Your task to perform on an android device: add a contact Image 0: 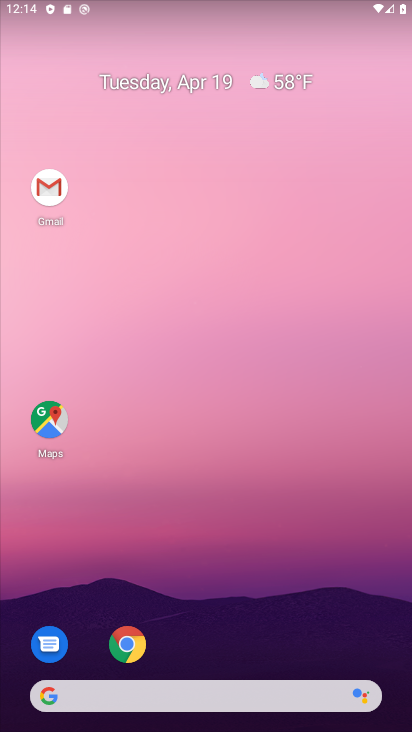
Step 0: drag from (221, 644) to (190, 291)
Your task to perform on an android device: add a contact Image 1: 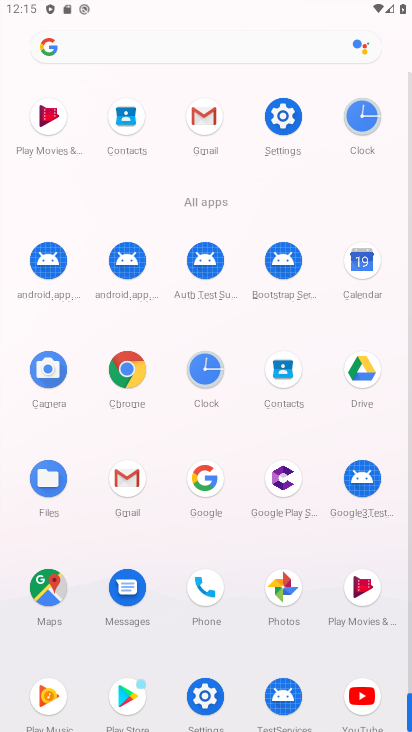
Step 1: click (279, 379)
Your task to perform on an android device: add a contact Image 2: 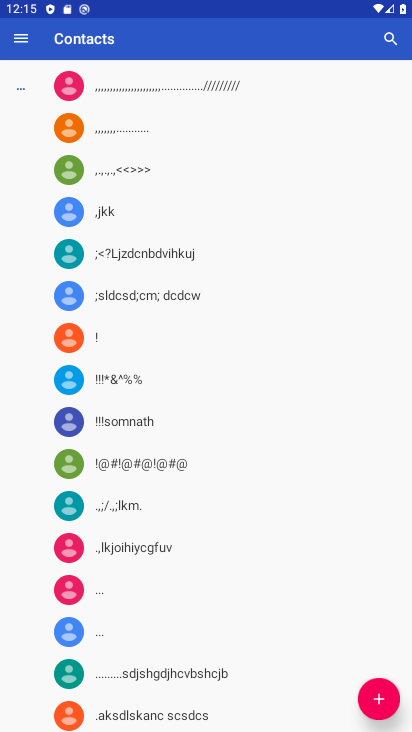
Step 2: click (390, 697)
Your task to perform on an android device: add a contact Image 3: 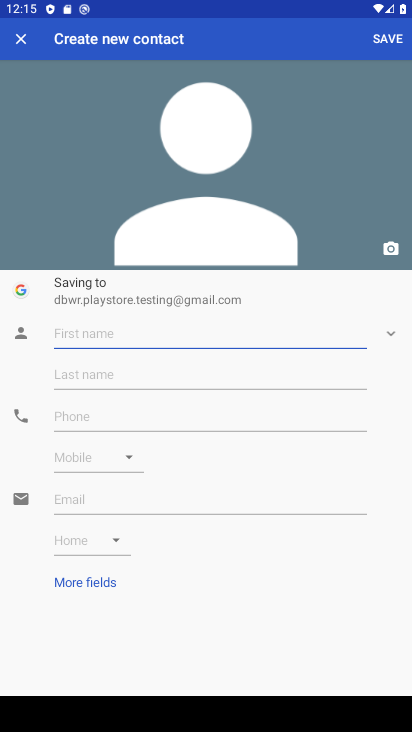
Step 3: type "@me"
Your task to perform on an android device: add a contact Image 4: 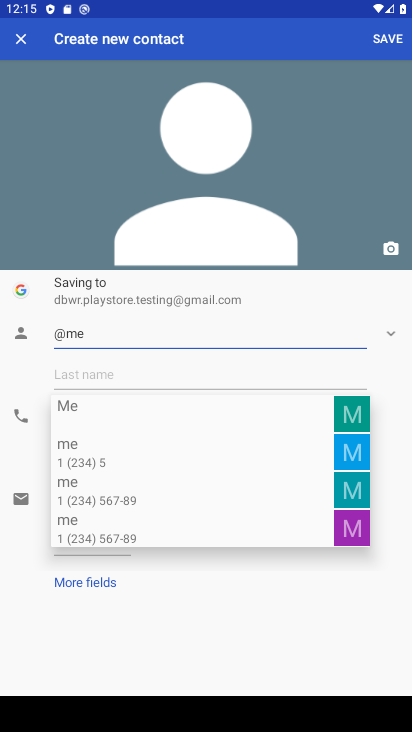
Step 4: click (98, 411)
Your task to perform on an android device: add a contact Image 5: 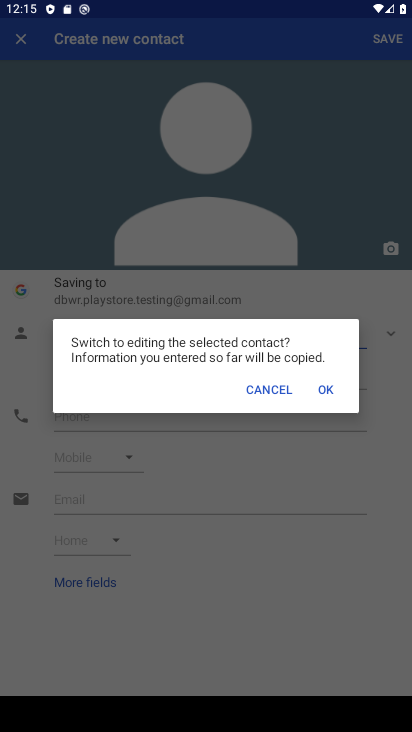
Step 5: click (254, 390)
Your task to perform on an android device: add a contact Image 6: 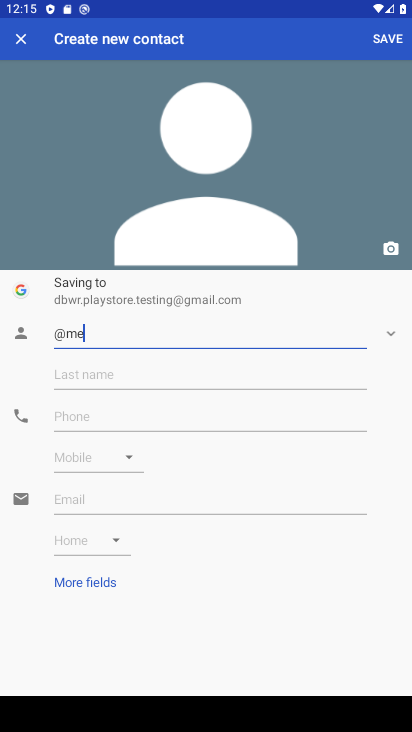
Step 6: click (120, 378)
Your task to perform on an android device: add a contact Image 7: 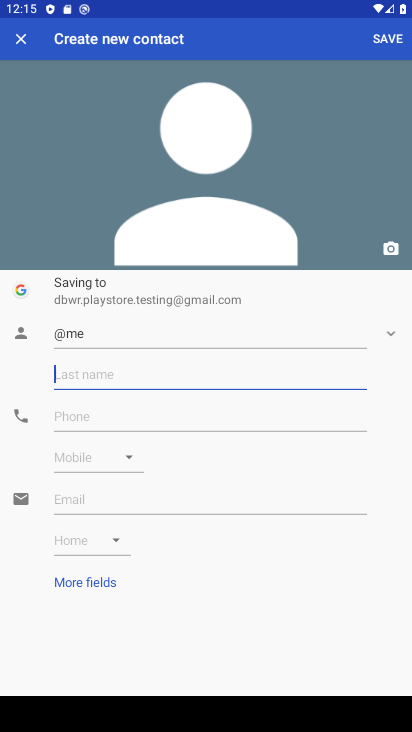
Step 7: type "#me"
Your task to perform on an android device: add a contact Image 8: 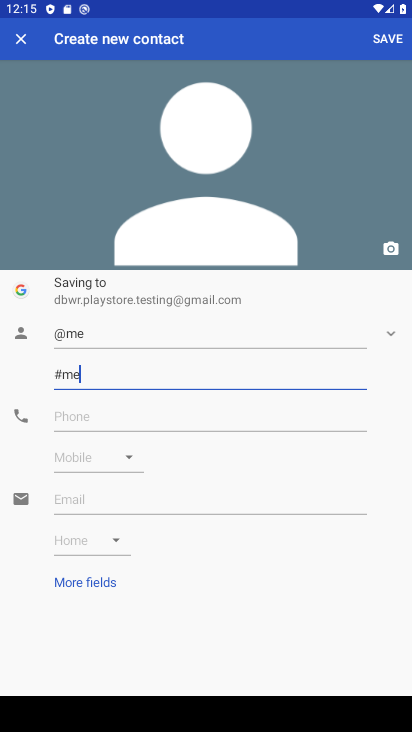
Step 8: click (89, 419)
Your task to perform on an android device: add a contact Image 9: 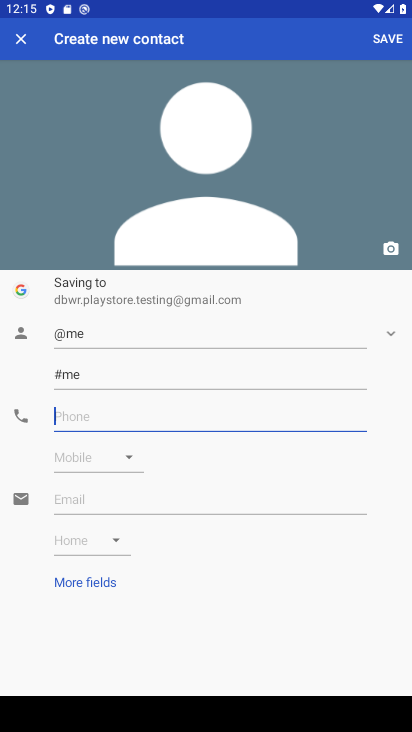
Step 9: type "1234567890"
Your task to perform on an android device: add a contact Image 10: 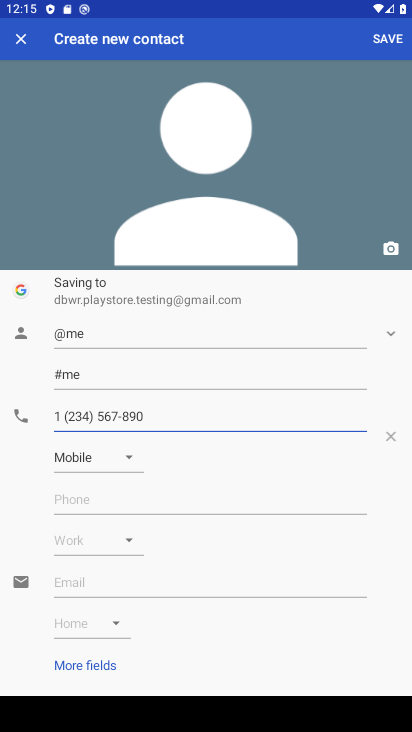
Step 10: click (385, 40)
Your task to perform on an android device: add a contact Image 11: 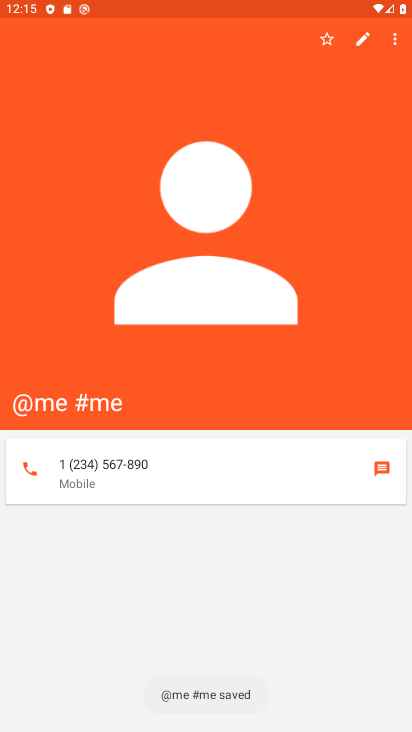
Step 11: task complete